Your task to perform on an android device: change text size in settings app Image 0: 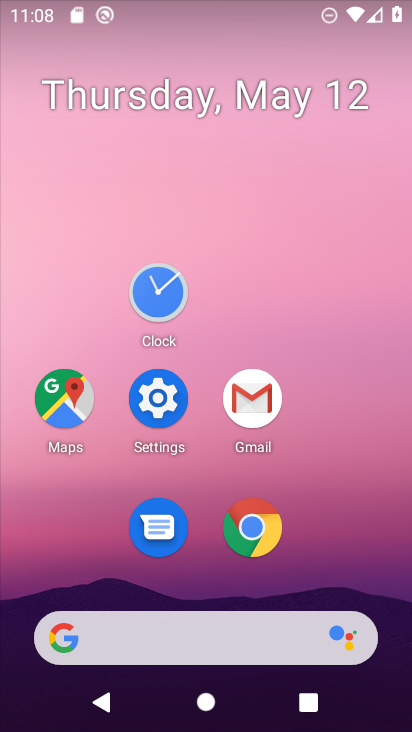
Step 0: click (138, 399)
Your task to perform on an android device: change text size in settings app Image 1: 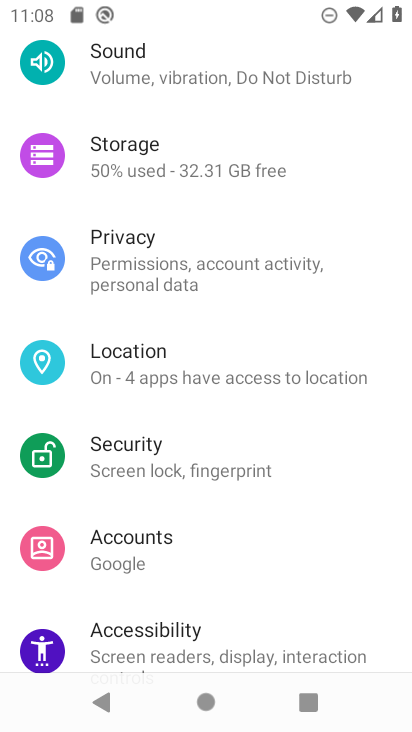
Step 1: drag from (249, 155) to (229, 425)
Your task to perform on an android device: change text size in settings app Image 2: 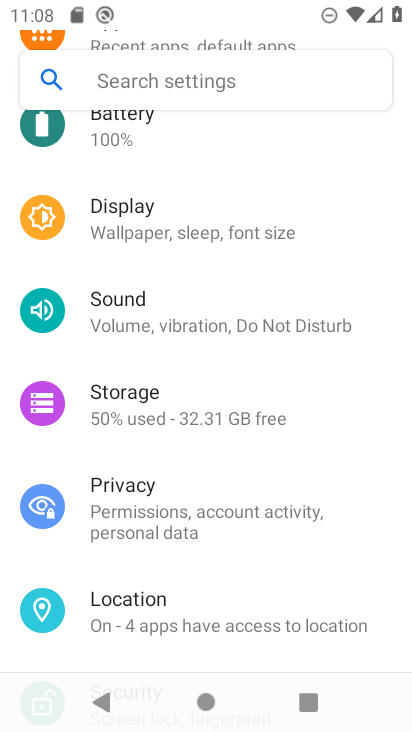
Step 2: click (272, 238)
Your task to perform on an android device: change text size in settings app Image 3: 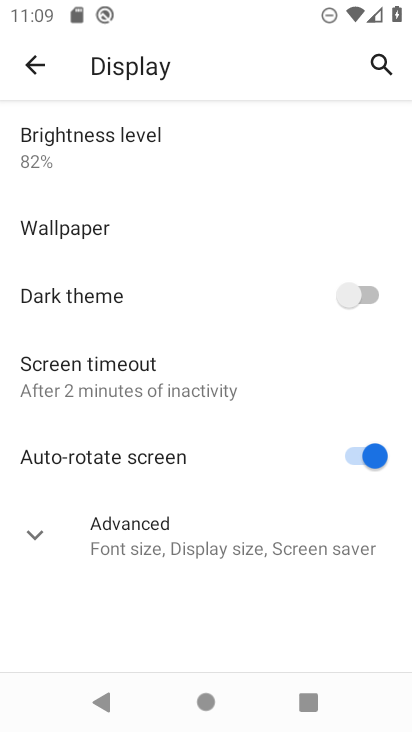
Step 3: click (182, 546)
Your task to perform on an android device: change text size in settings app Image 4: 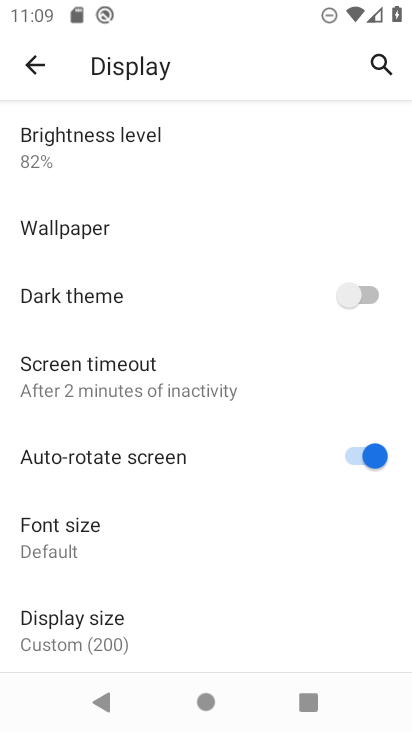
Step 4: click (172, 561)
Your task to perform on an android device: change text size in settings app Image 5: 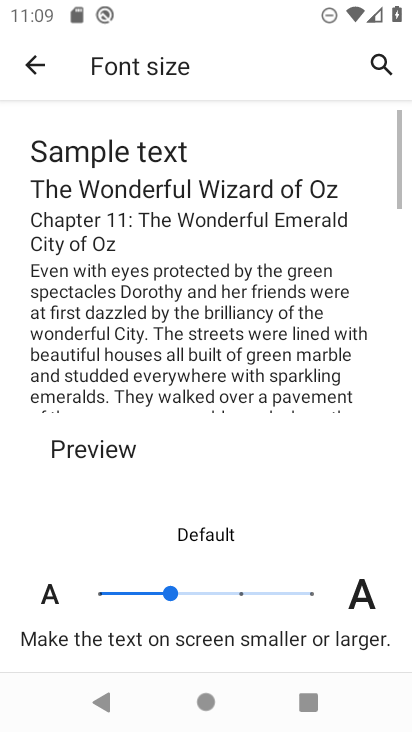
Step 5: click (228, 594)
Your task to perform on an android device: change text size in settings app Image 6: 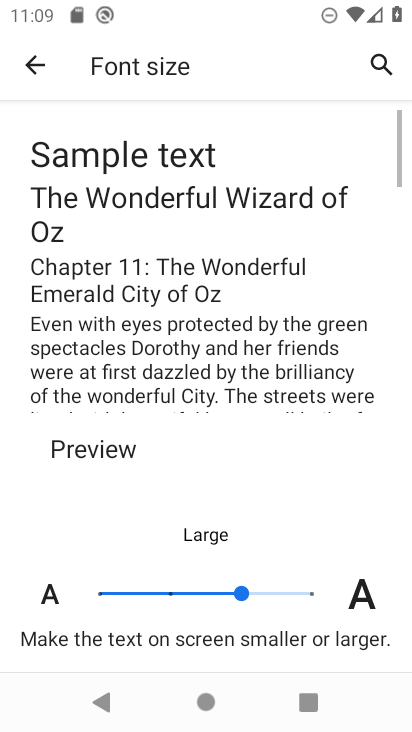
Step 6: task complete